Your task to perform on an android device: turn off improve location accuracy Image 0: 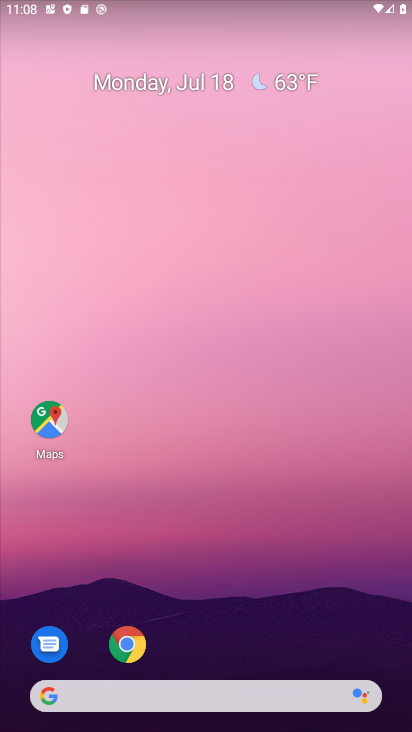
Step 0: drag from (213, 727) to (235, 139)
Your task to perform on an android device: turn off improve location accuracy Image 1: 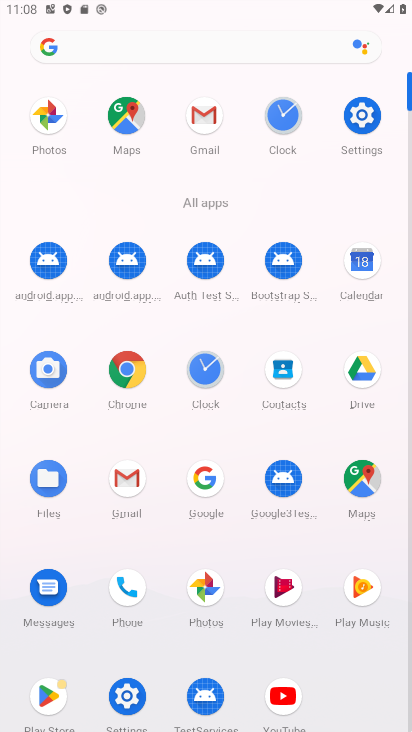
Step 1: click (360, 120)
Your task to perform on an android device: turn off improve location accuracy Image 2: 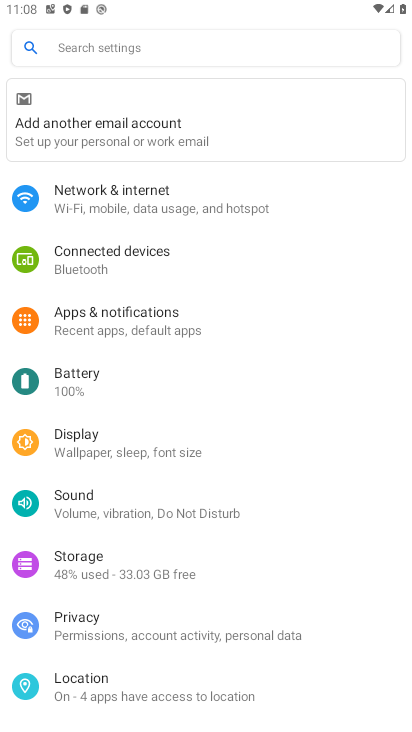
Step 2: click (98, 689)
Your task to perform on an android device: turn off improve location accuracy Image 3: 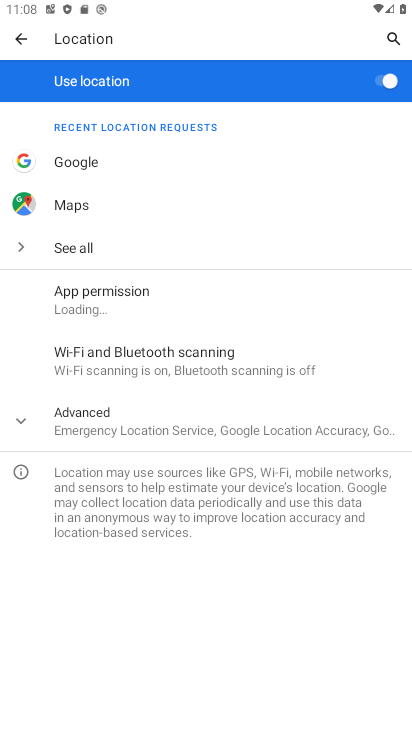
Step 3: click (102, 431)
Your task to perform on an android device: turn off improve location accuracy Image 4: 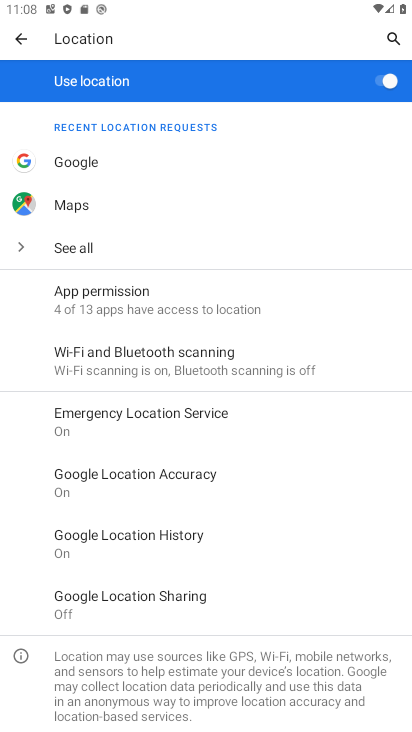
Step 4: click (169, 475)
Your task to perform on an android device: turn off improve location accuracy Image 5: 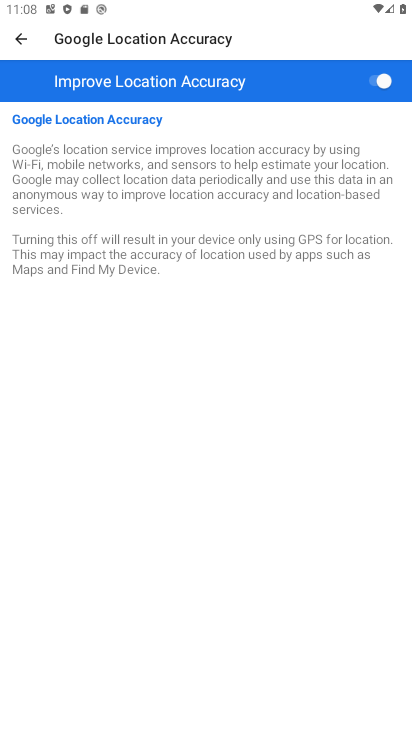
Step 5: click (380, 82)
Your task to perform on an android device: turn off improve location accuracy Image 6: 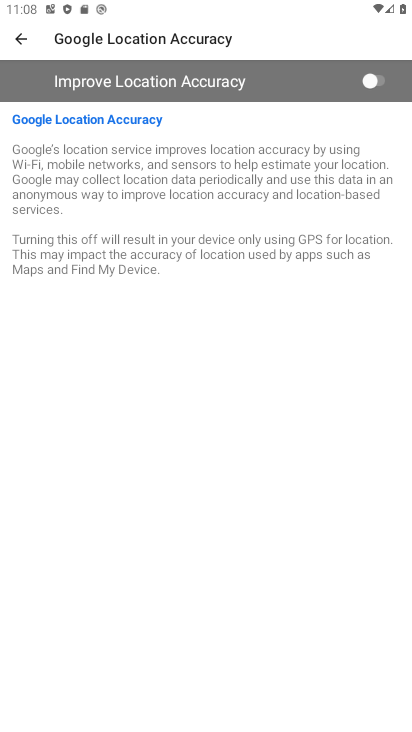
Step 6: task complete